Your task to perform on an android device: See recent photos Image 0: 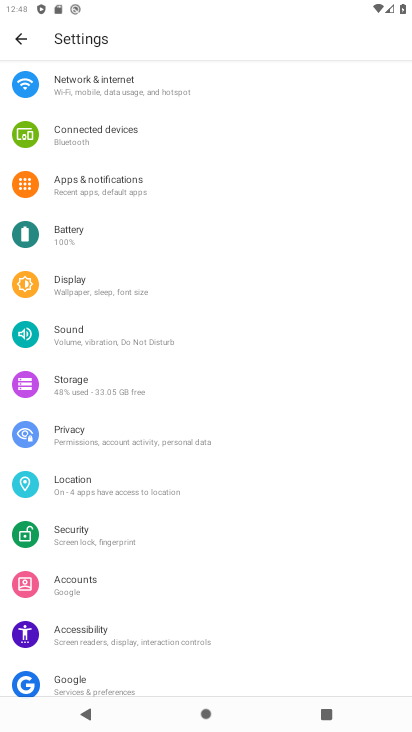
Step 0: press home button
Your task to perform on an android device: See recent photos Image 1: 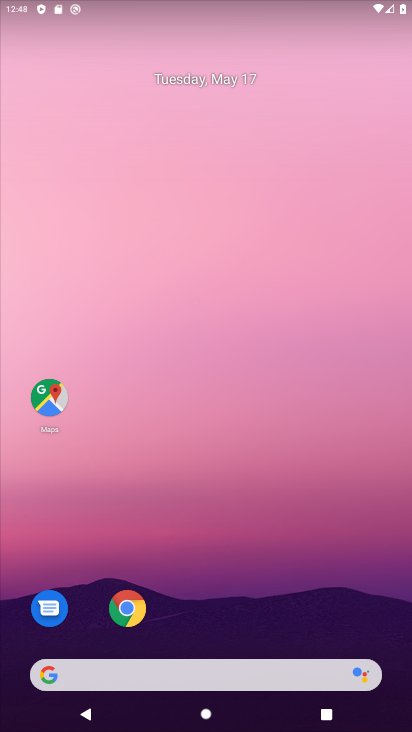
Step 1: drag from (203, 620) to (235, 177)
Your task to perform on an android device: See recent photos Image 2: 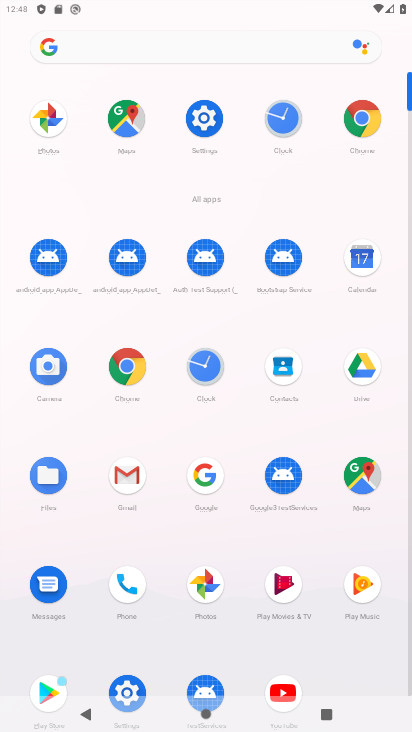
Step 2: click (46, 106)
Your task to perform on an android device: See recent photos Image 3: 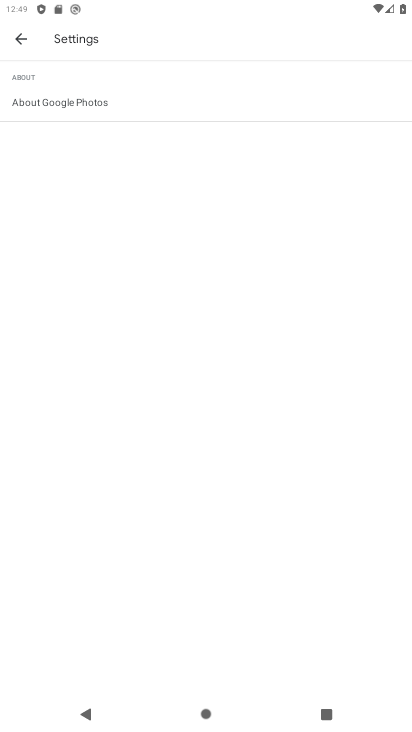
Step 3: click (23, 30)
Your task to perform on an android device: See recent photos Image 4: 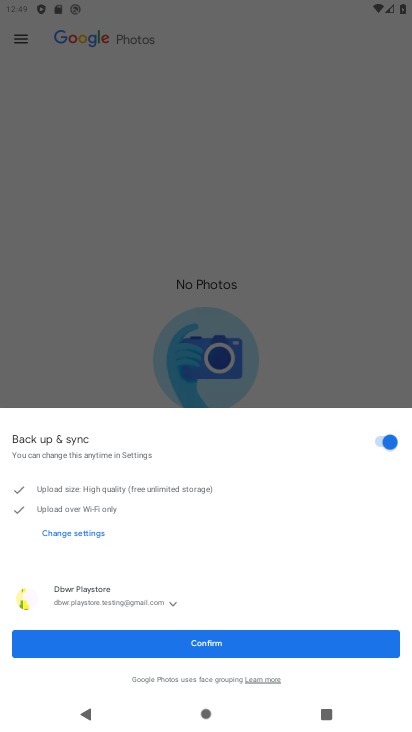
Step 4: click (186, 647)
Your task to perform on an android device: See recent photos Image 5: 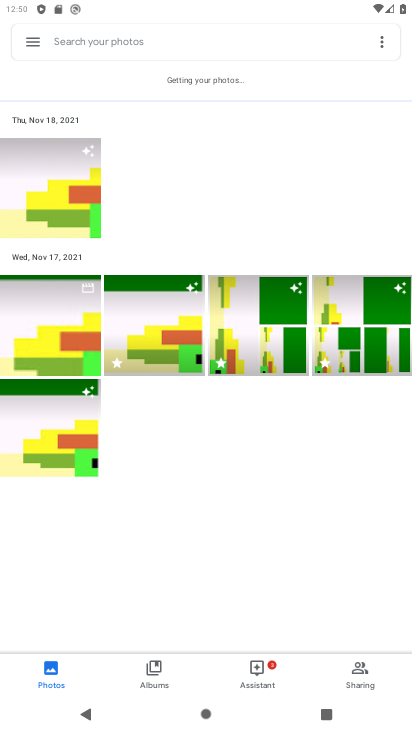
Step 5: task complete